Your task to perform on an android device: Open calendar and show me the second week of next month Image 0: 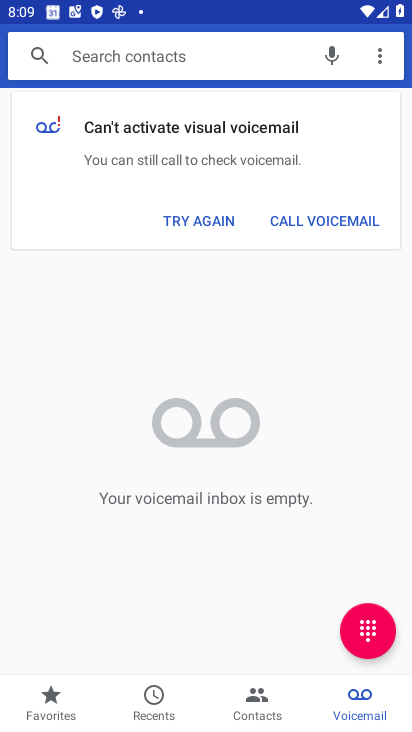
Step 0: press home button
Your task to perform on an android device: Open calendar and show me the second week of next month Image 1: 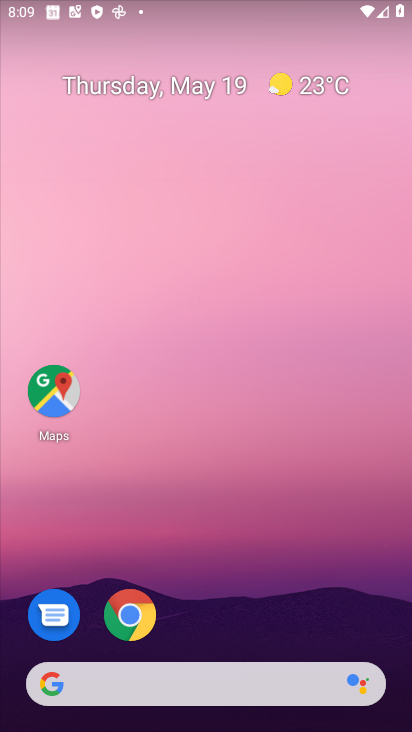
Step 1: drag from (354, 602) to (319, 101)
Your task to perform on an android device: Open calendar and show me the second week of next month Image 2: 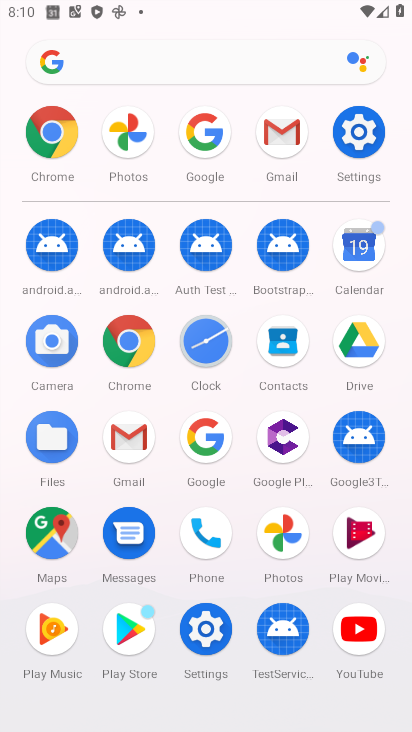
Step 2: click (364, 241)
Your task to perform on an android device: Open calendar and show me the second week of next month Image 3: 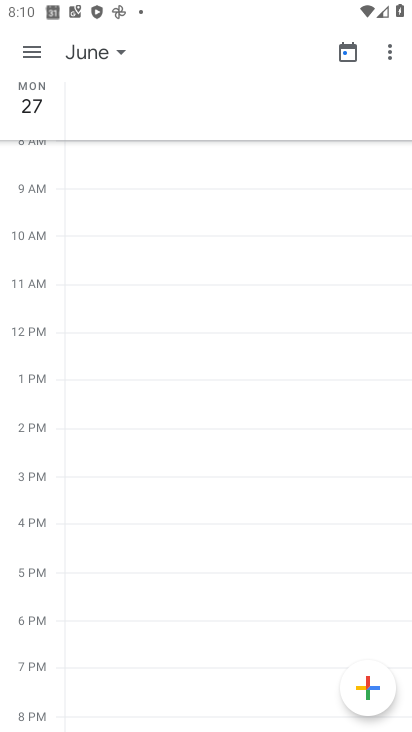
Step 3: click (104, 68)
Your task to perform on an android device: Open calendar and show me the second week of next month Image 4: 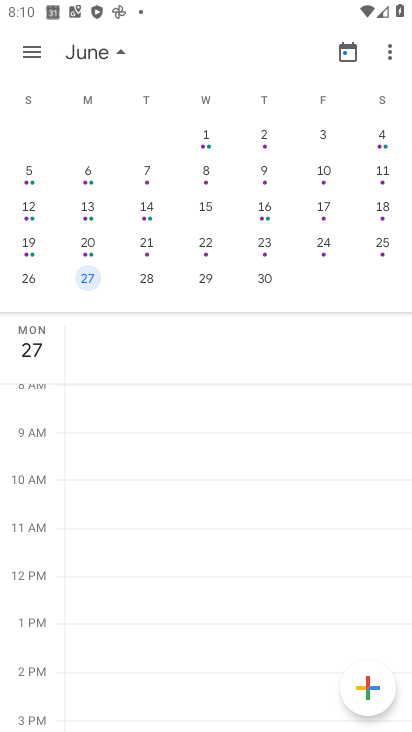
Step 4: drag from (344, 231) to (71, 220)
Your task to perform on an android device: Open calendar and show me the second week of next month Image 5: 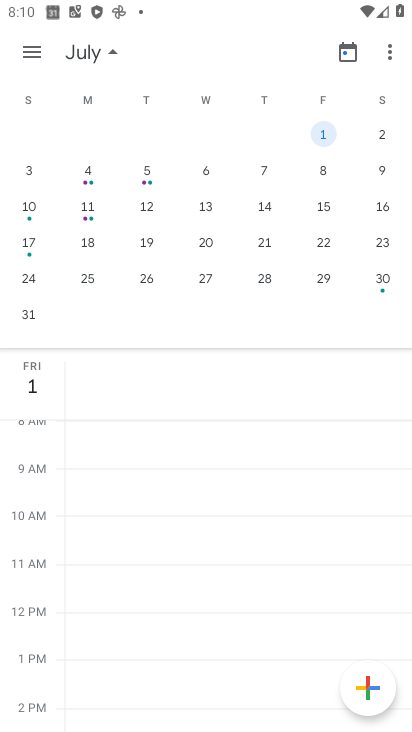
Step 5: click (80, 208)
Your task to perform on an android device: Open calendar and show me the second week of next month Image 6: 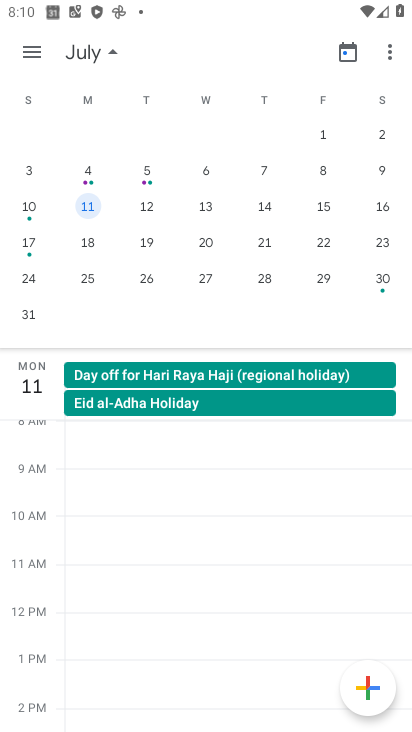
Step 6: task complete